Your task to perform on an android device: set the timer Image 0: 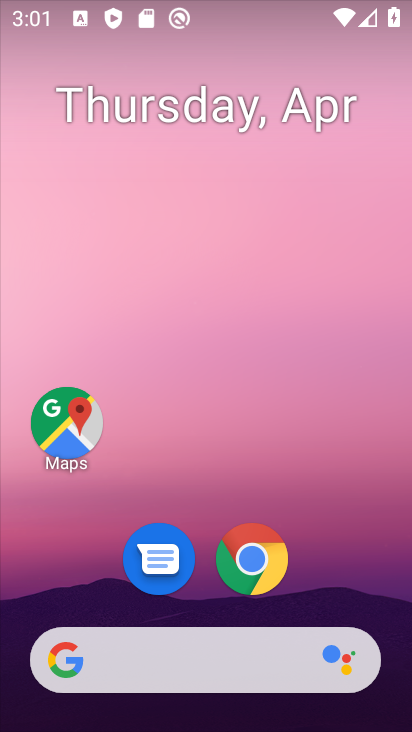
Step 0: drag from (342, 603) to (329, 186)
Your task to perform on an android device: set the timer Image 1: 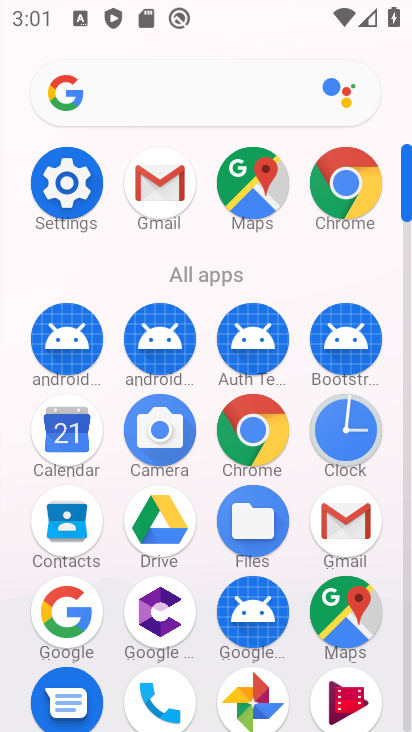
Step 1: click (337, 430)
Your task to perform on an android device: set the timer Image 2: 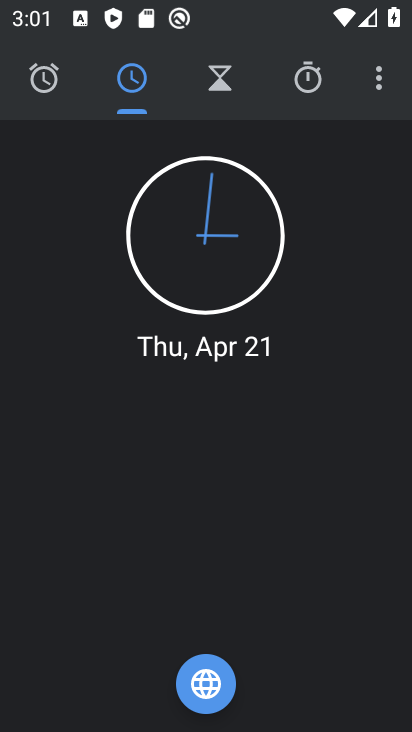
Step 2: click (314, 92)
Your task to perform on an android device: set the timer Image 3: 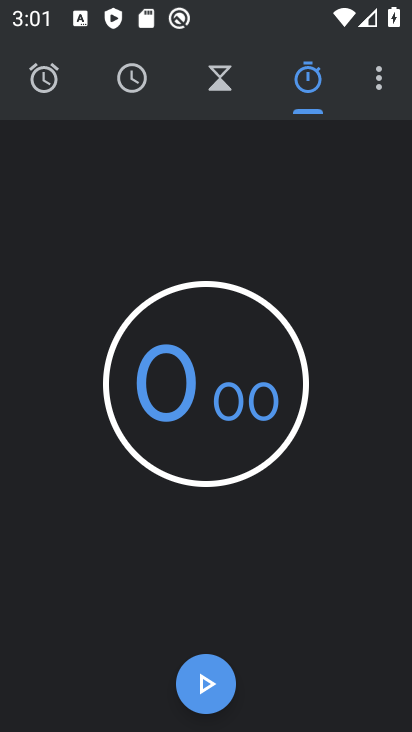
Step 3: click (202, 66)
Your task to perform on an android device: set the timer Image 4: 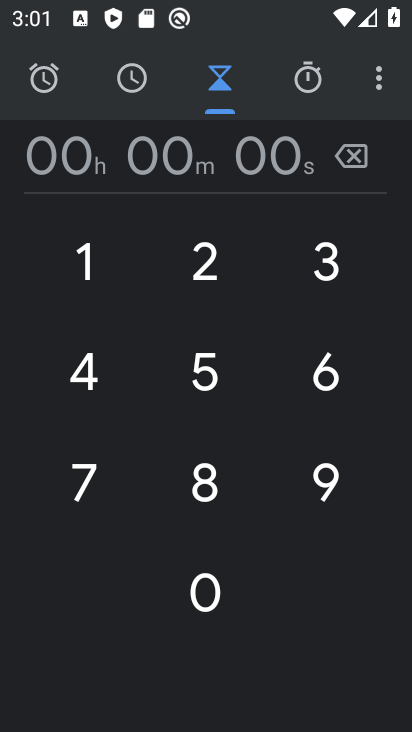
Step 4: click (205, 248)
Your task to perform on an android device: set the timer Image 5: 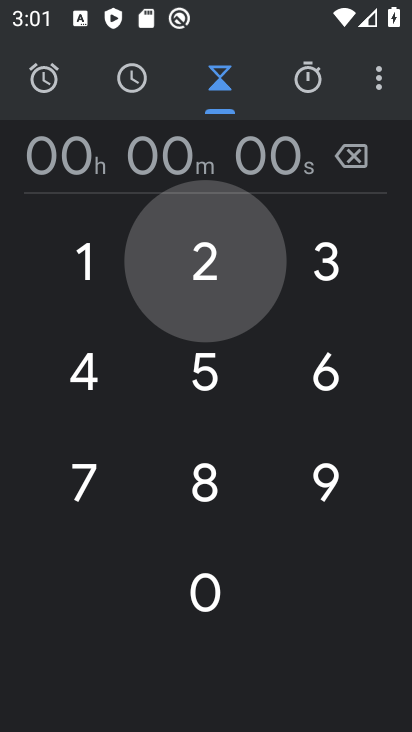
Step 5: click (203, 362)
Your task to perform on an android device: set the timer Image 6: 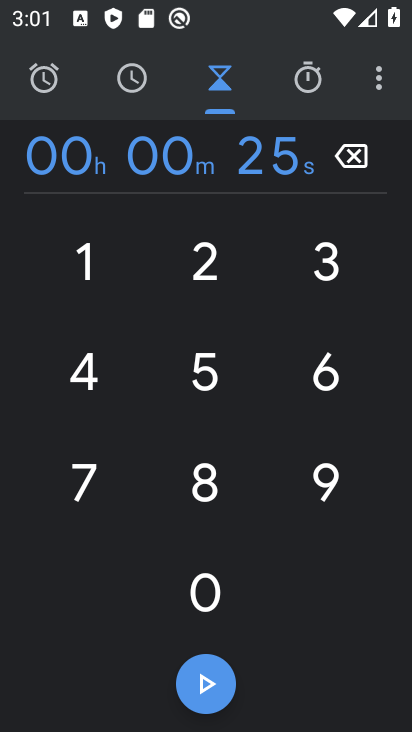
Step 6: click (210, 688)
Your task to perform on an android device: set the timer Image 7: 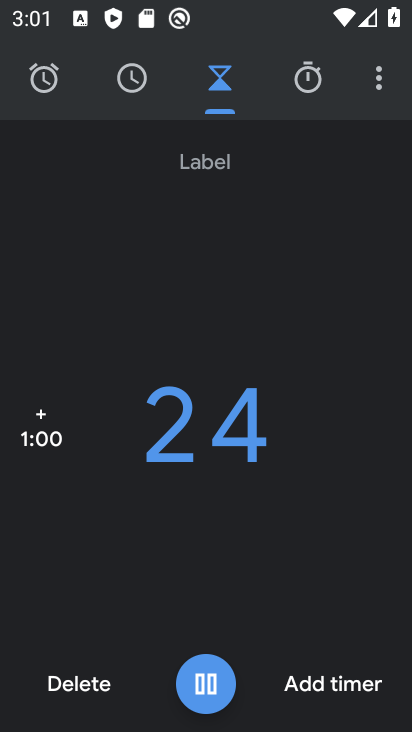
Step 7: task complete